Your task to perform on an android device: Find coffee shops on Maps Image 0: 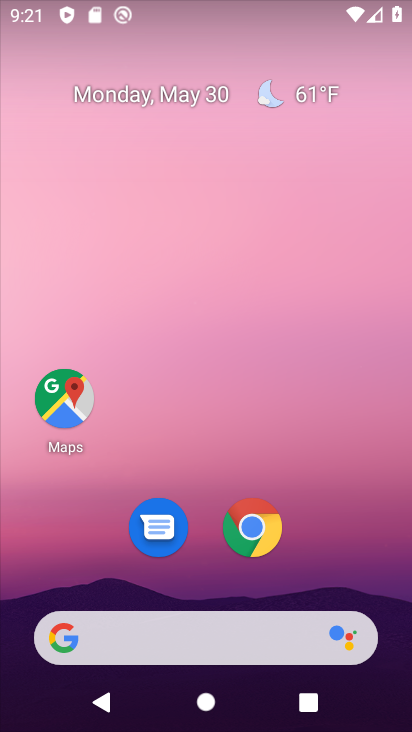
Step 0: click (68, 398)
Your task to perform on an android device: Find coffee shops on Maps Image 1: 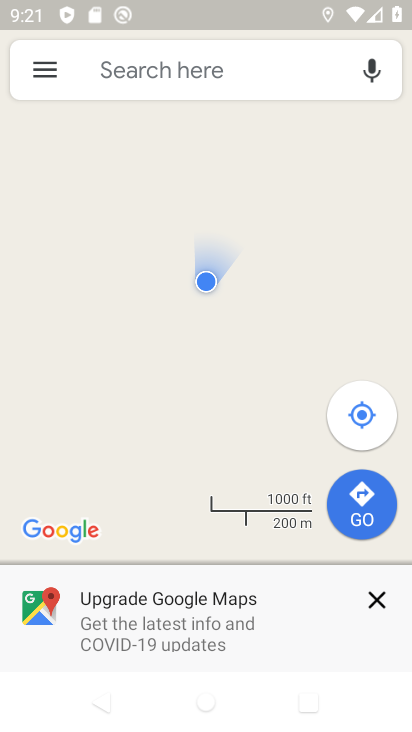
Step 1: click (164, 69)
Your task to perform on an android device: Find coffee shops on Maps Image 2: 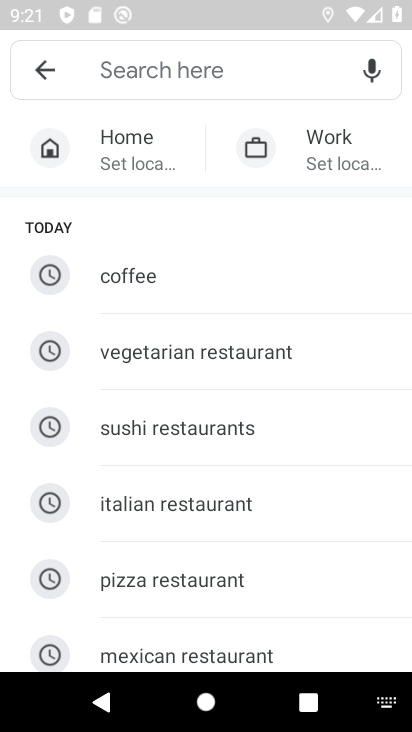
Step 2: type "coffee shops"
Your task to perform on an android device: Find coffee shops on Maps Image 3: 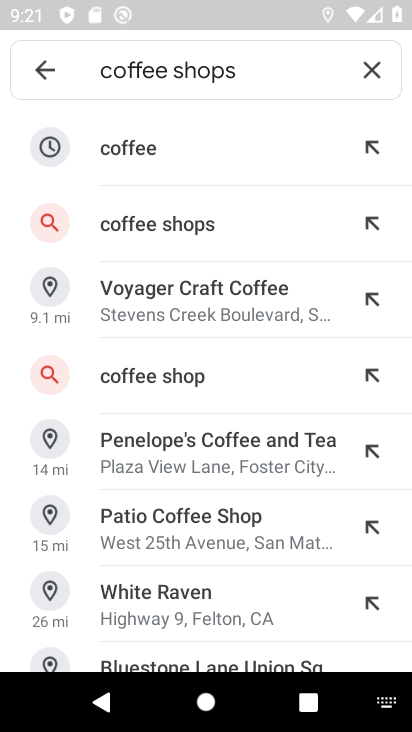
Step 3: click (157, 237)
Your task to perform on an android device: Find coffee shops on Maps Image 4: 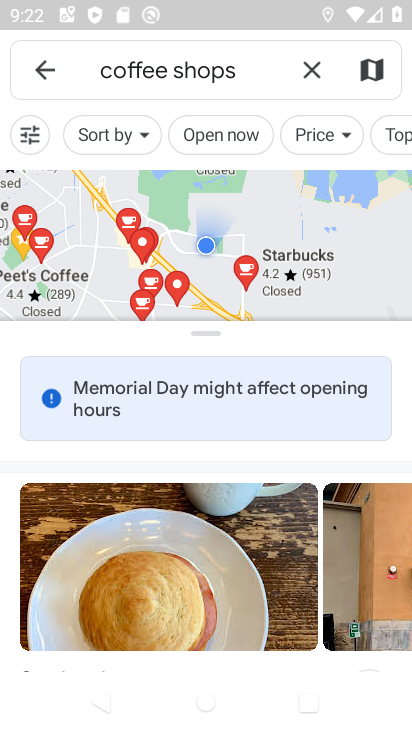
Step 4: task complete